Your task to perform on an android device: Go to Reddit.com Image 0: 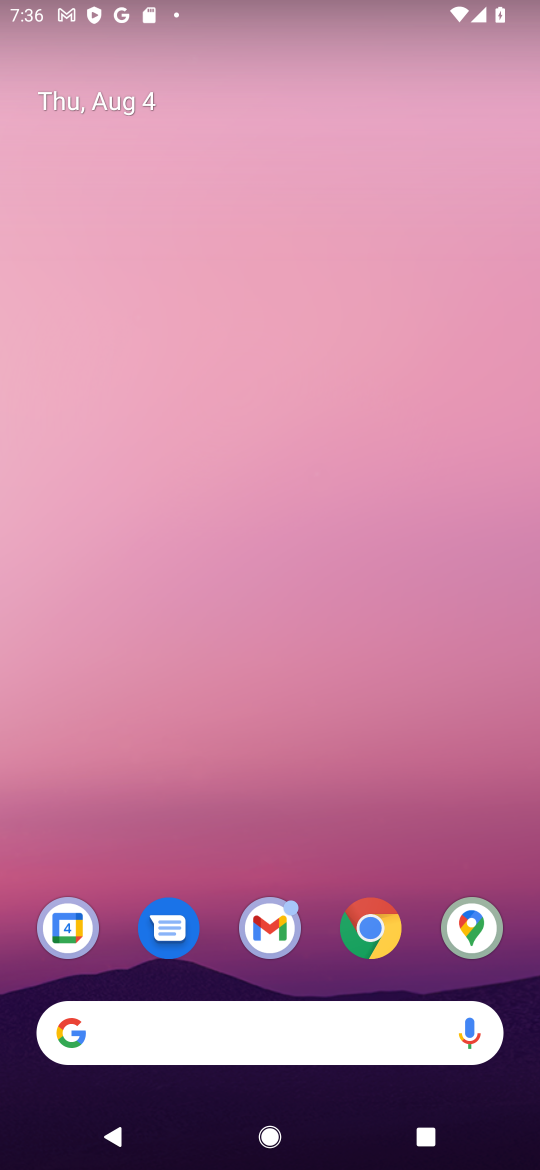
Step 0: drag from (222, 935) to (284, 279)
Your task to perform on an android device: Go to Reddit.com Image 1: 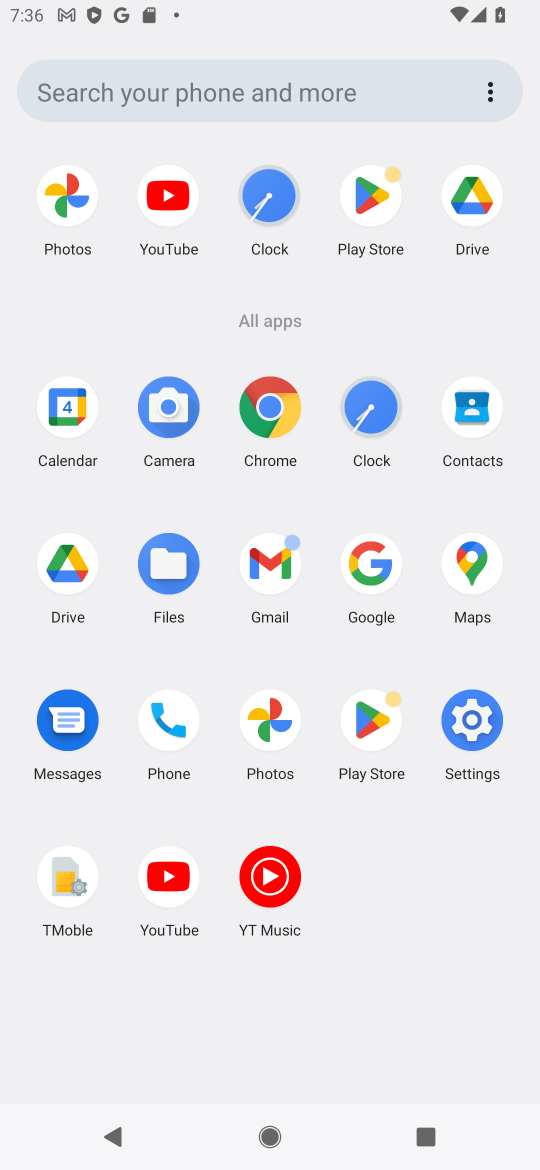
Step 1: click (263, 408)
Your task to perform on an android device: Go to Reddit.com Image 2: 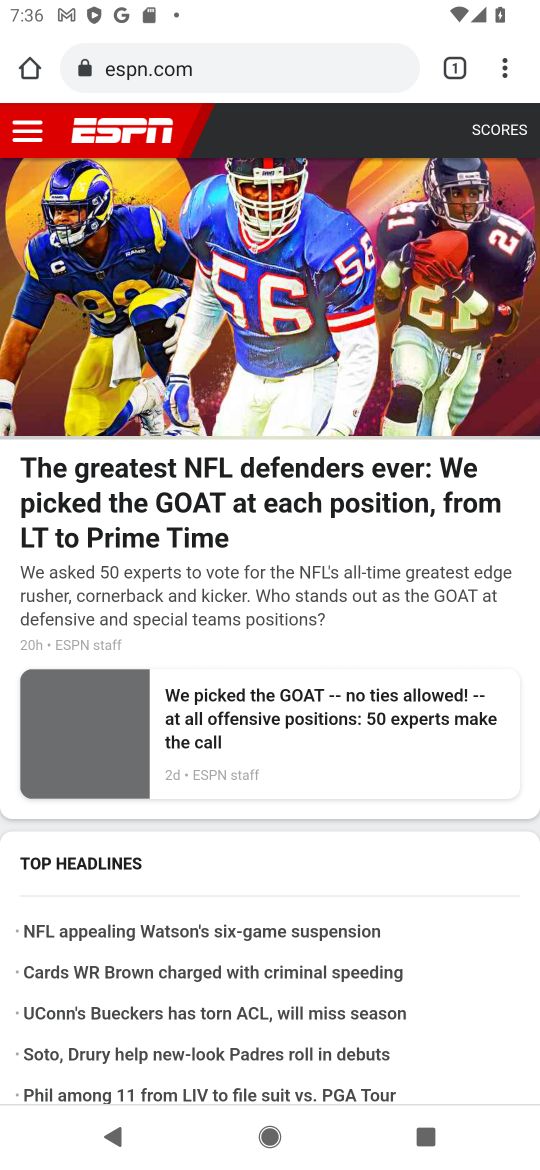
Step 2: click (249, 79)
Your task to perform on an android device: Go to Reddit.com Image 3: 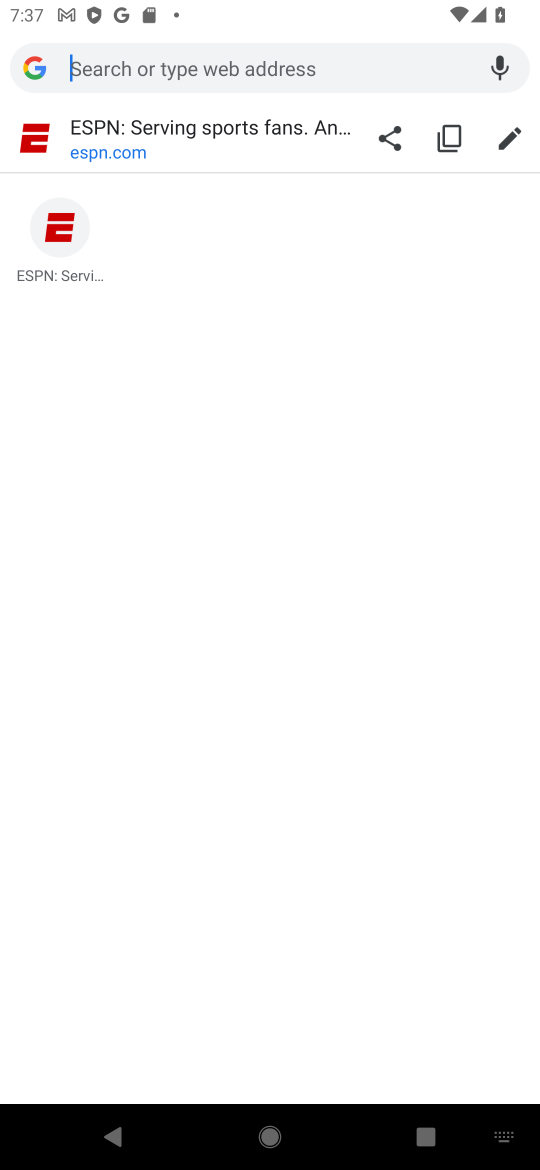
Step 3: type "reddit.com"
Your task to perform on an android device: Go to Reddit.com Image 4: 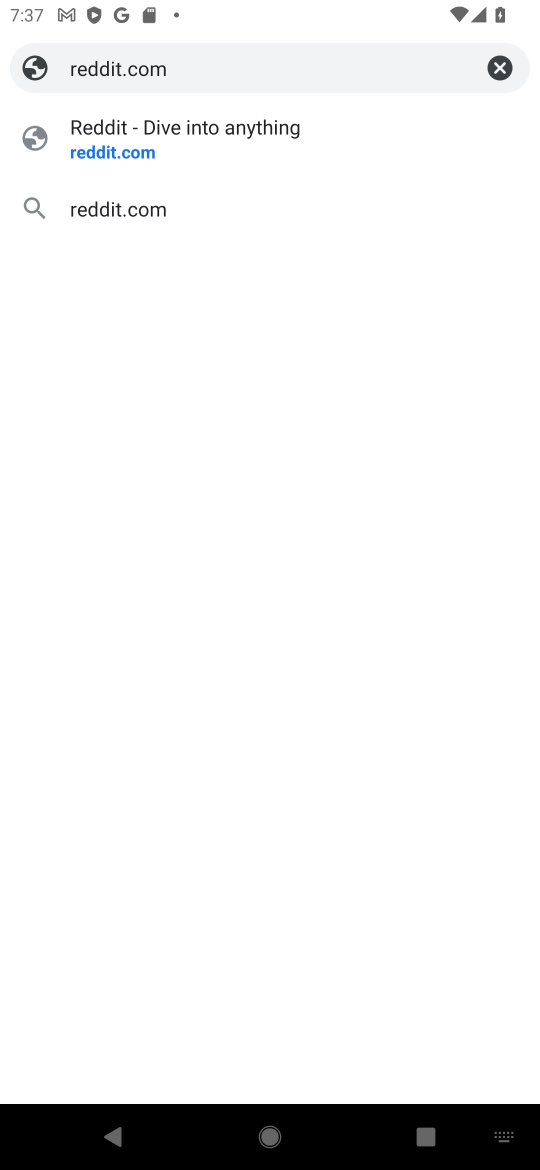
Step 4: click (159, 135)
Your task to perform on an android device: Go to Reddit.com Image 5: 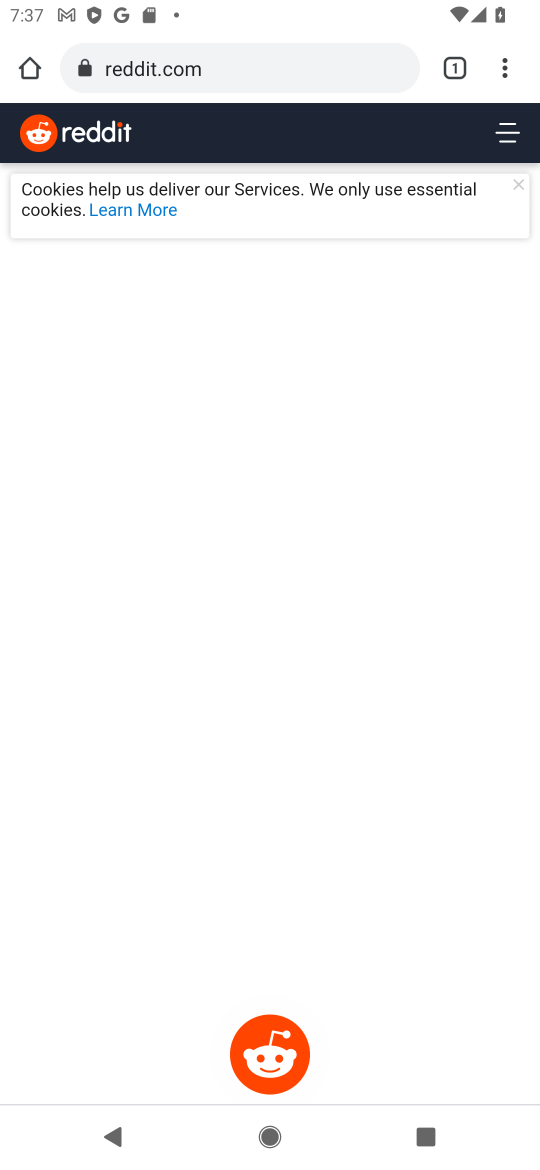
Step 5: task complete